Your task to perform on an android device: Go to settings Image 0: 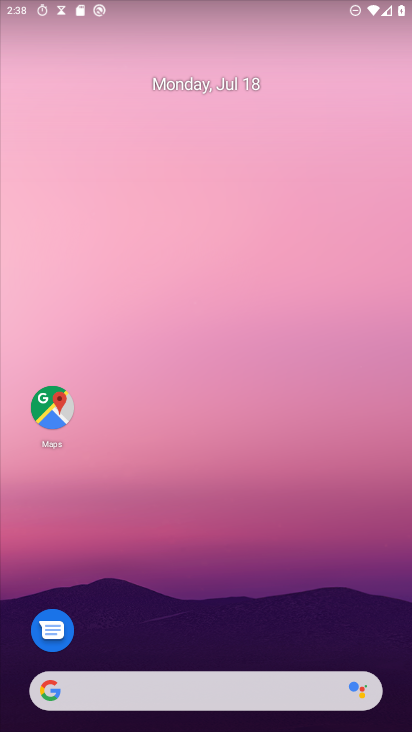
Step 0: drag from (264, 659) to (280, 62)
Your task to perform on an android device: Go to settings Image 1: 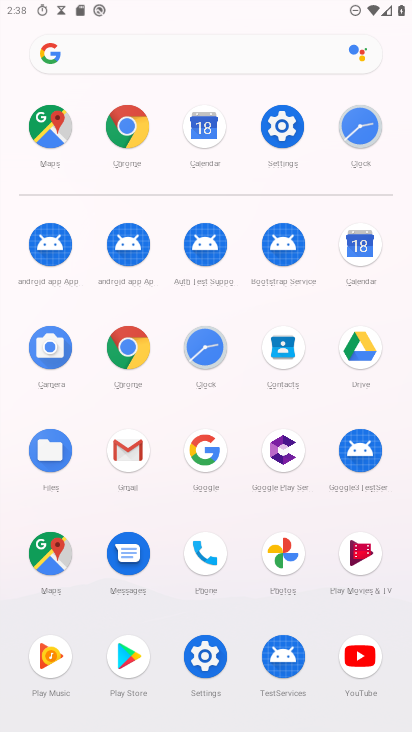
Step 1: click (282, 116)
Your task to perform on an android device: Go to settings Image 2: 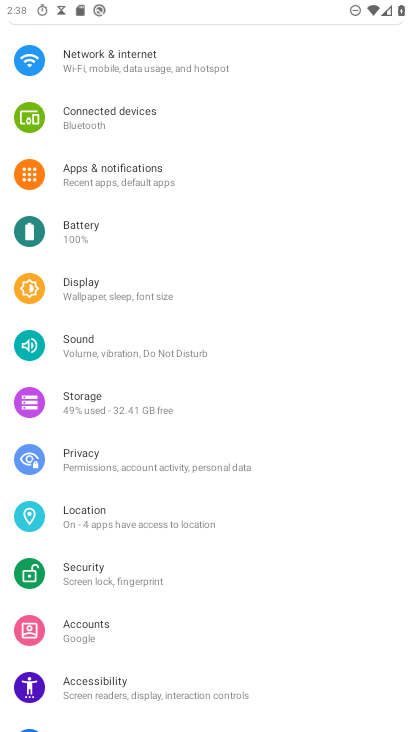
Step 2: task complete